Your task to perform on an android device: What's the news about the US? Image 0: 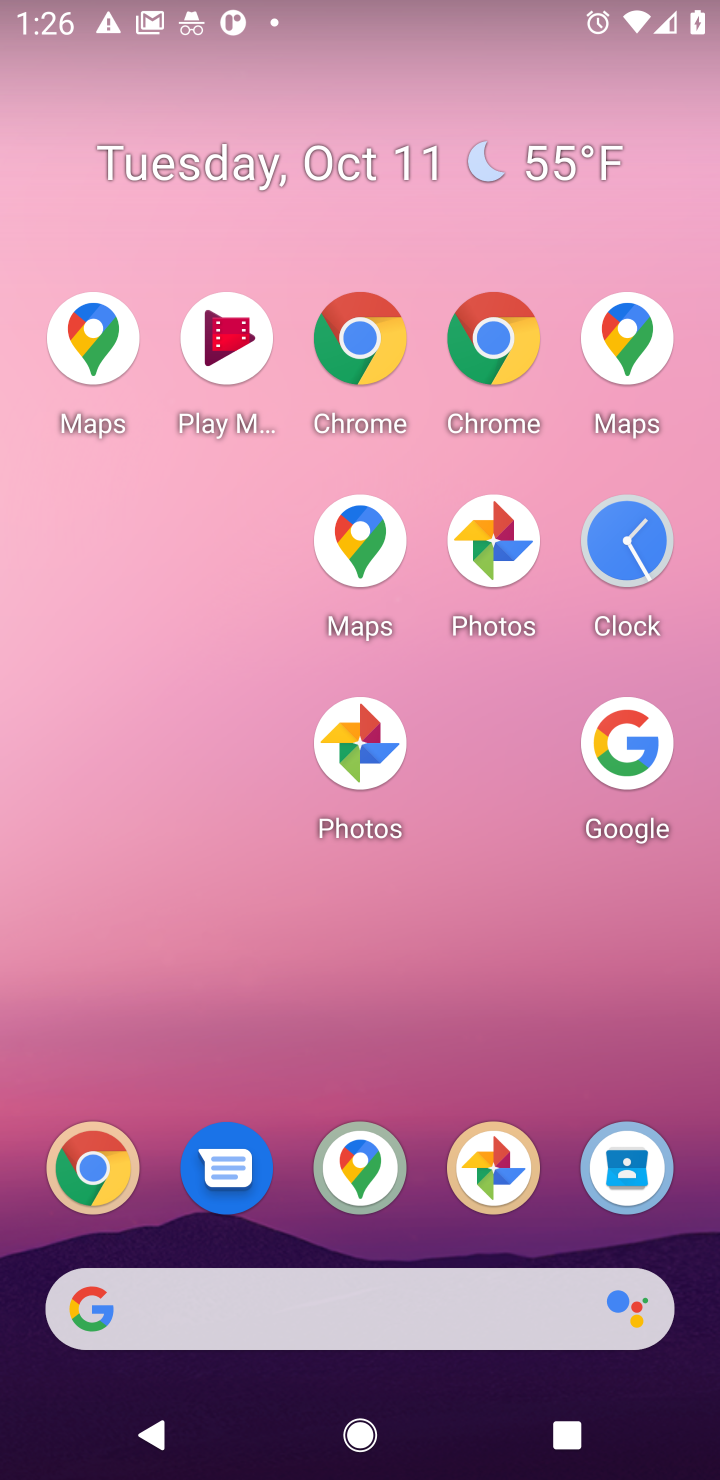
Step 0: click (296, 925)
Your task to perform on an android device: What's the news about the US? Image 1: 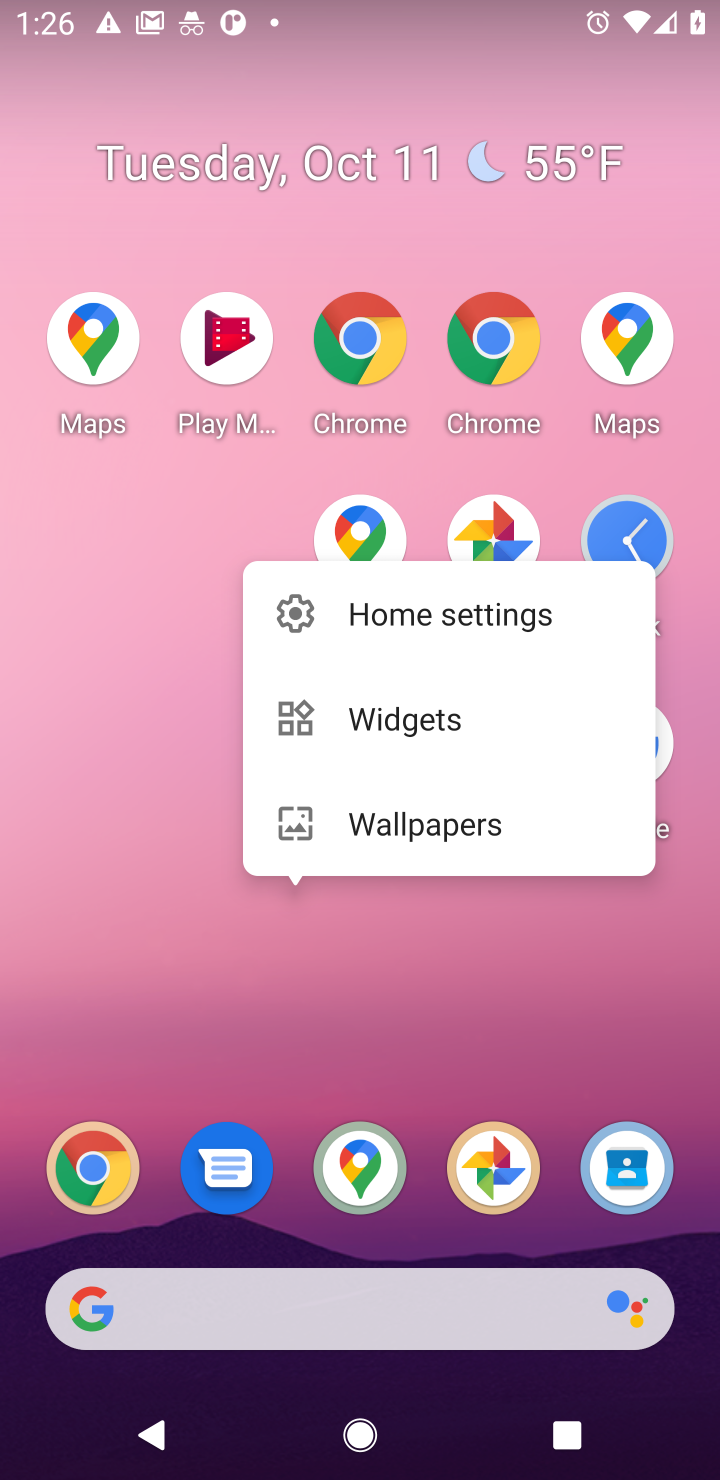
Step 1: click (138, 959)
Your task to perform on an android device: What's the news about the US? Image 2: 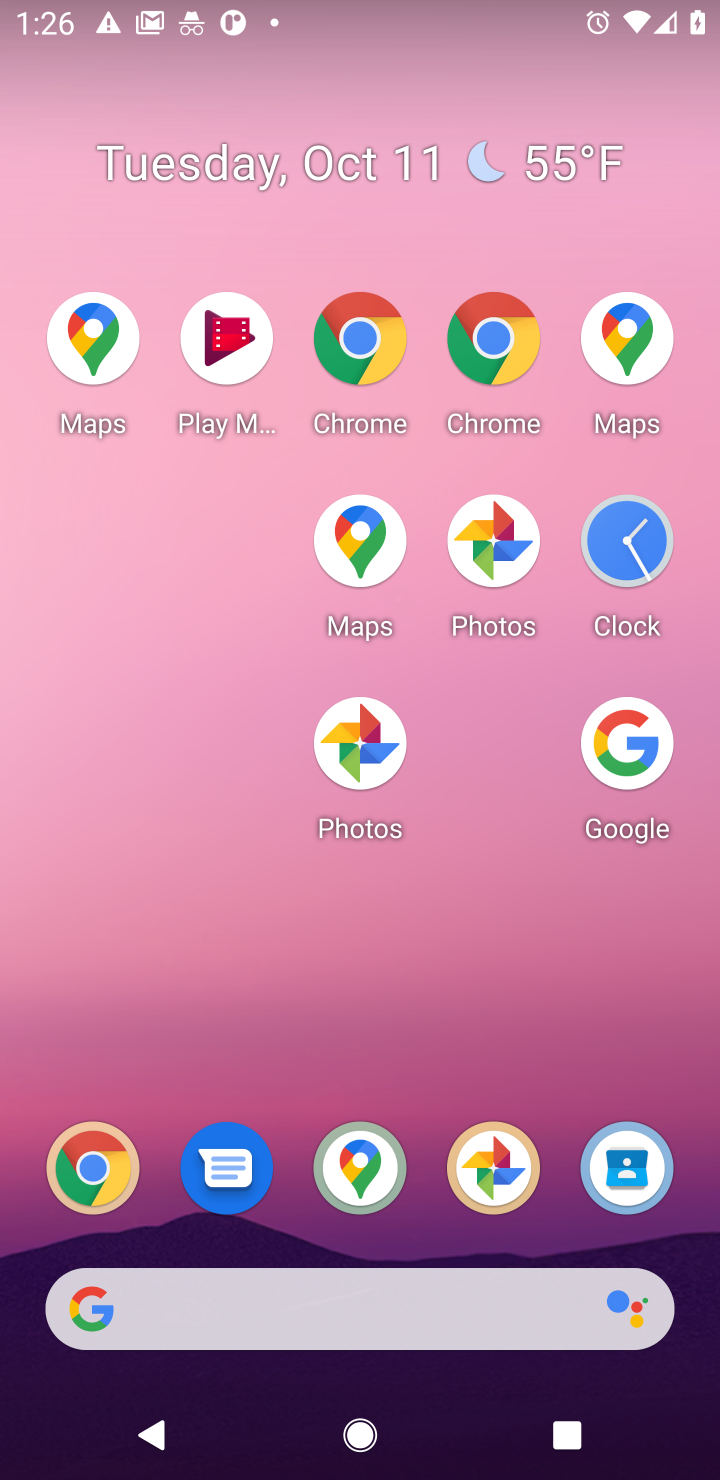
Step 2: click (613, 760)
Your task to perform on an android device: What's the news about the US? Image 3: 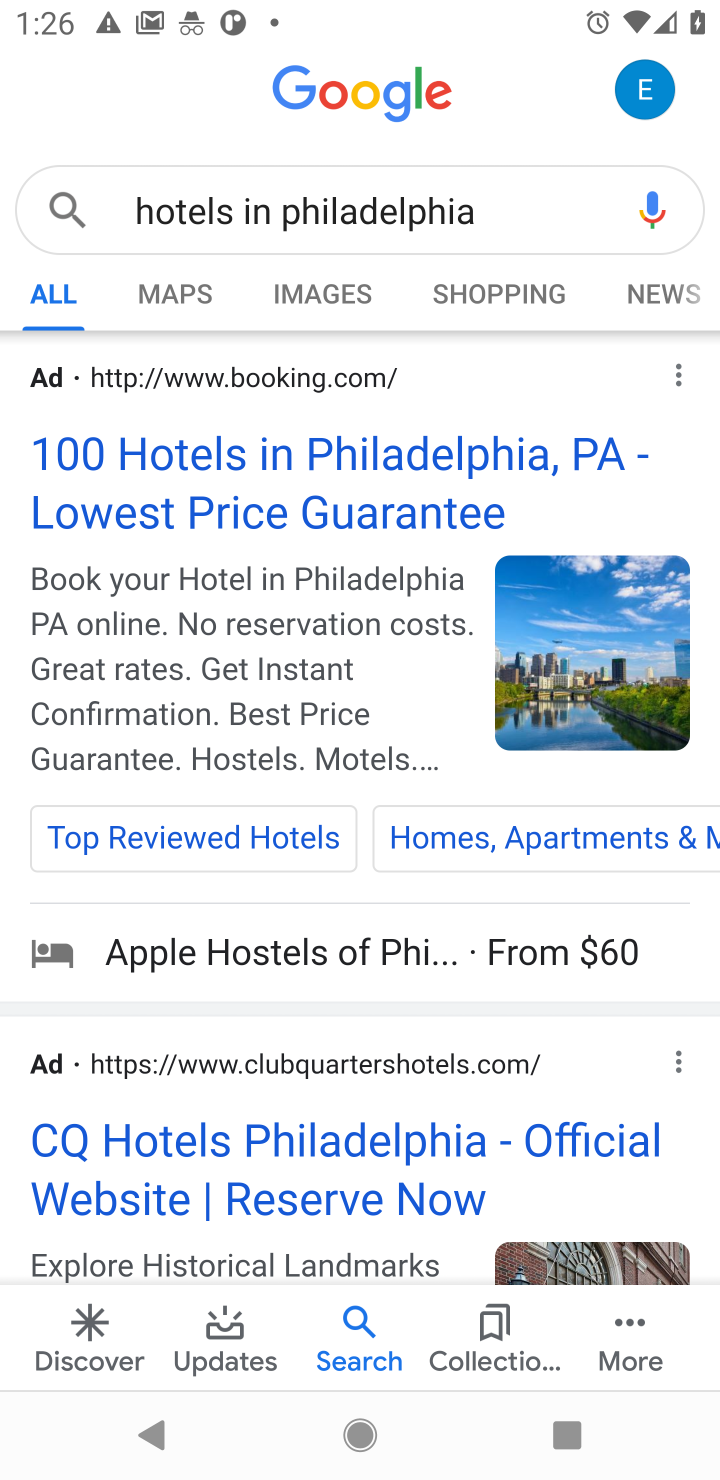
Step 3: click (571, 216)
Your task to perform on an android device: What's the news about the US? Image 4: 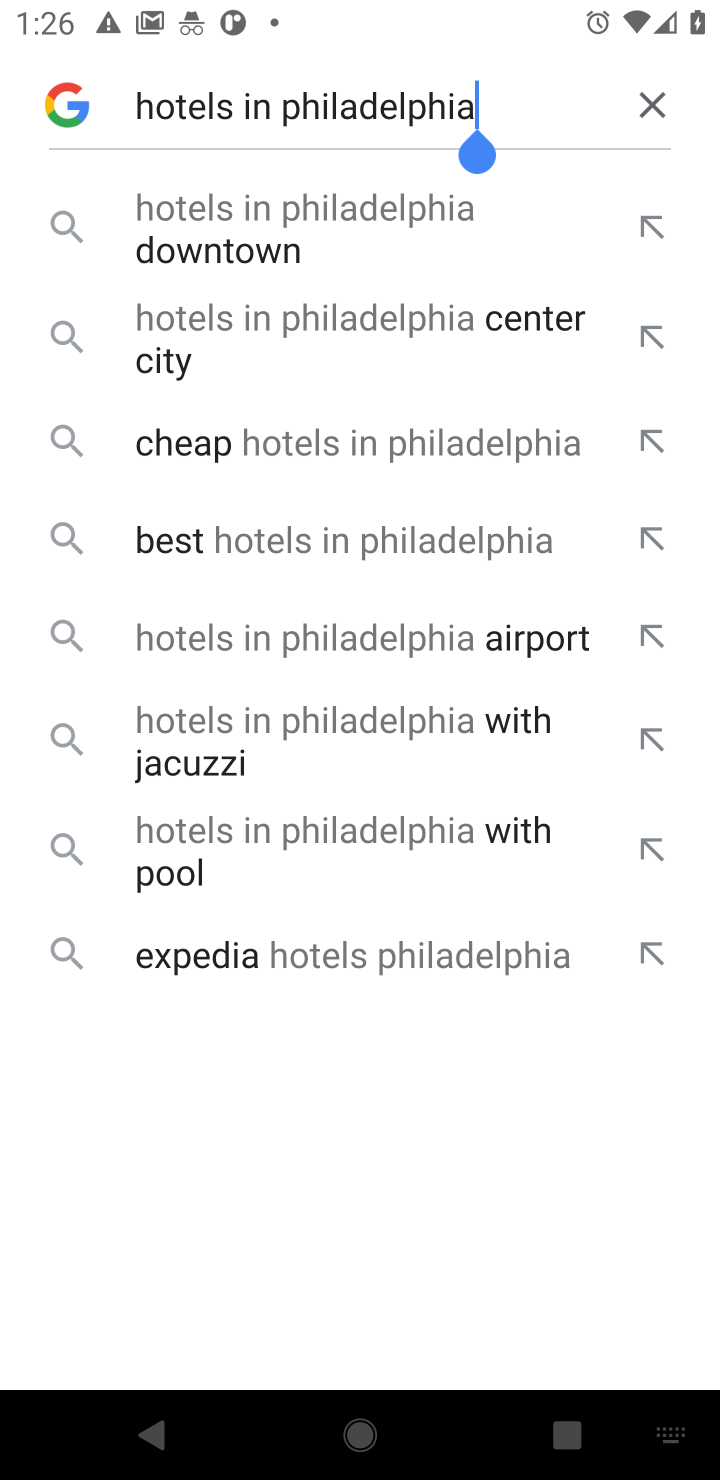
Step 4: click (652, 97)
Your task to perform on an android device: What's the news about the US? Image 5: 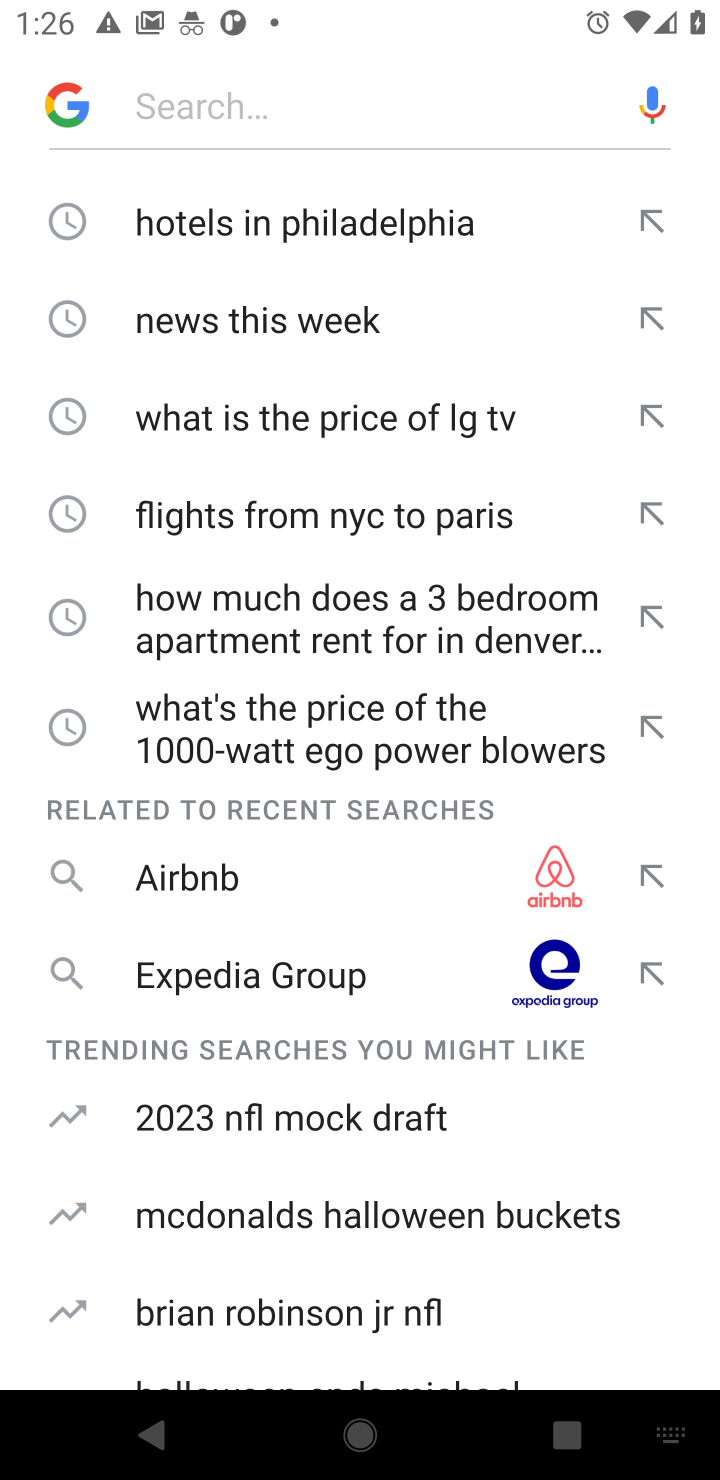
Step 5: type "news about the US"
Your task to perform on an android device: What's the news about the US? Image 6: 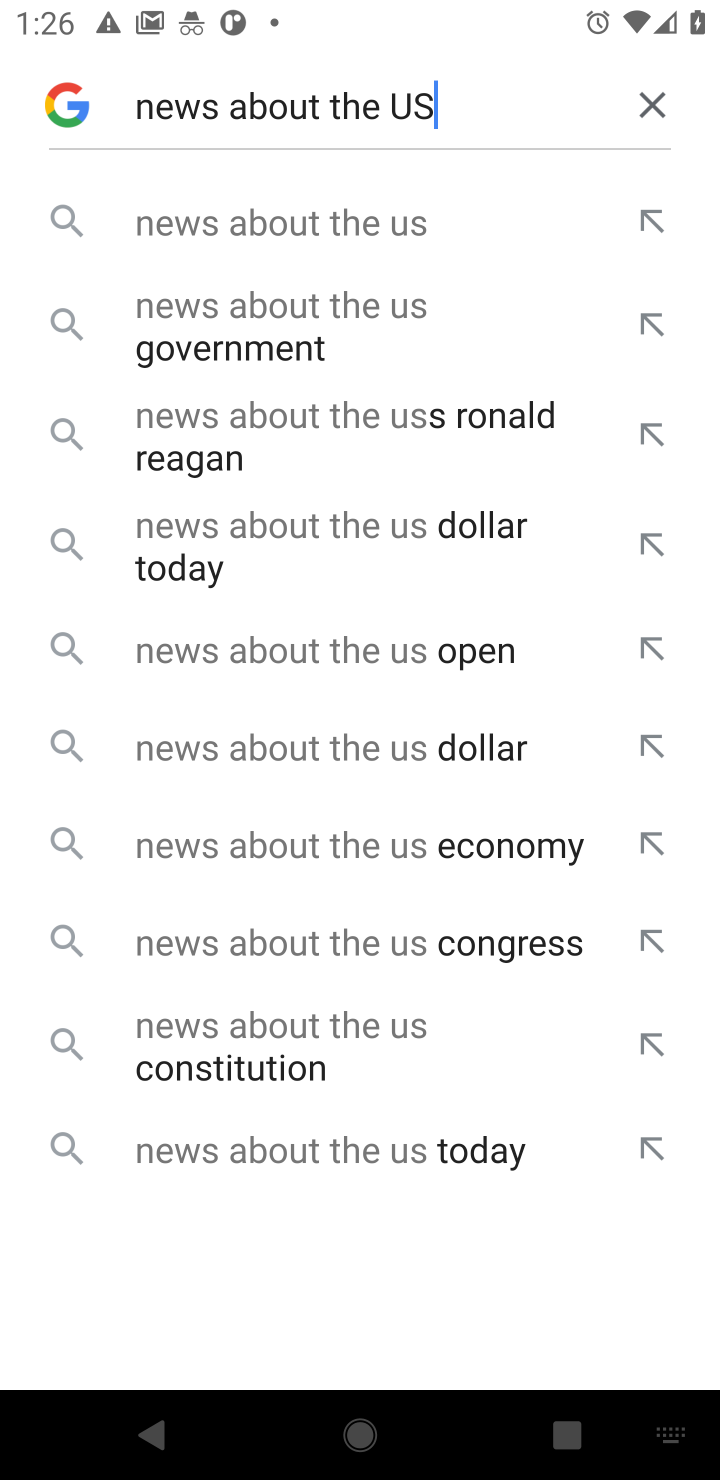
Step 6: click (410, 227)
Your task to perform on an android device: What's the news about the US? Image 7: 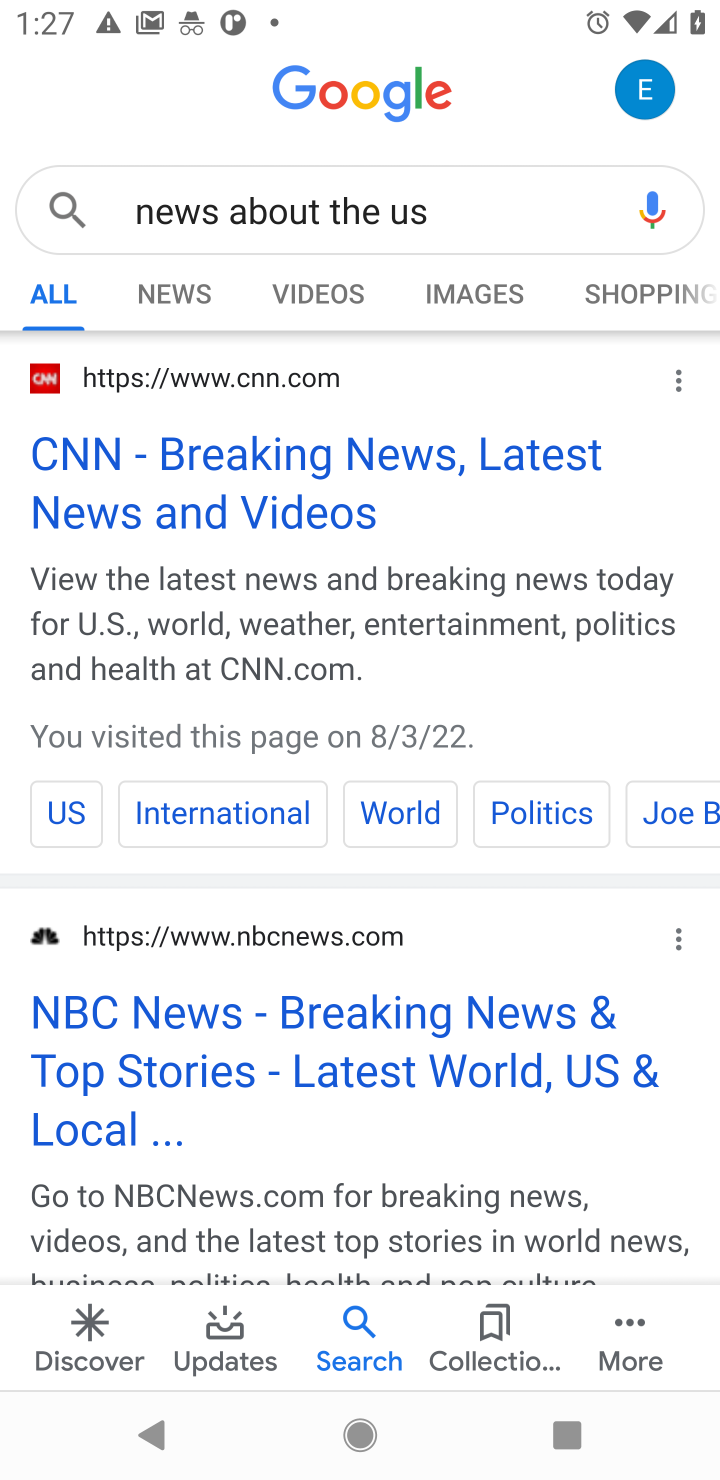
Step 7: click (160, 295)
Your task to perform on an android device: What's the news about the US? Image 8: 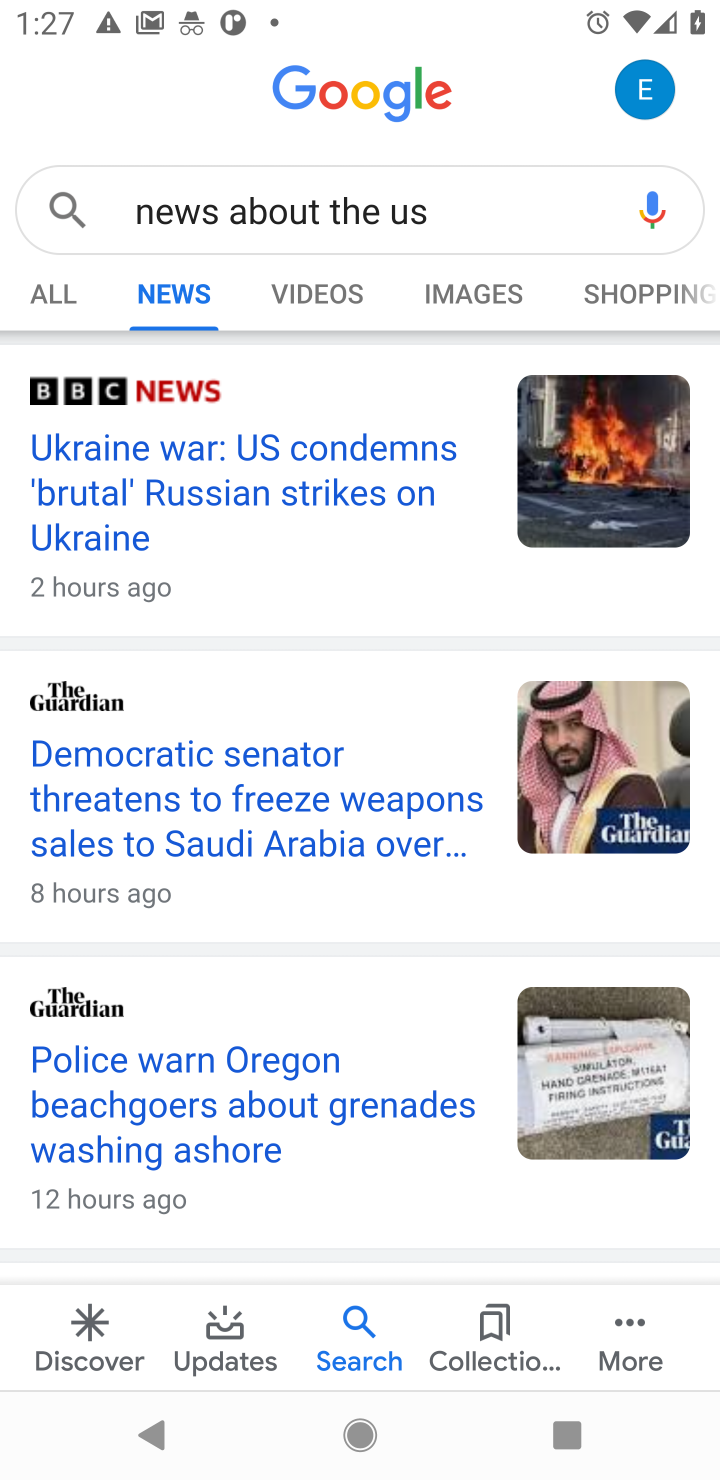
Step 8: task complete